Your task to perform on an android device: Open location settings Image 0: 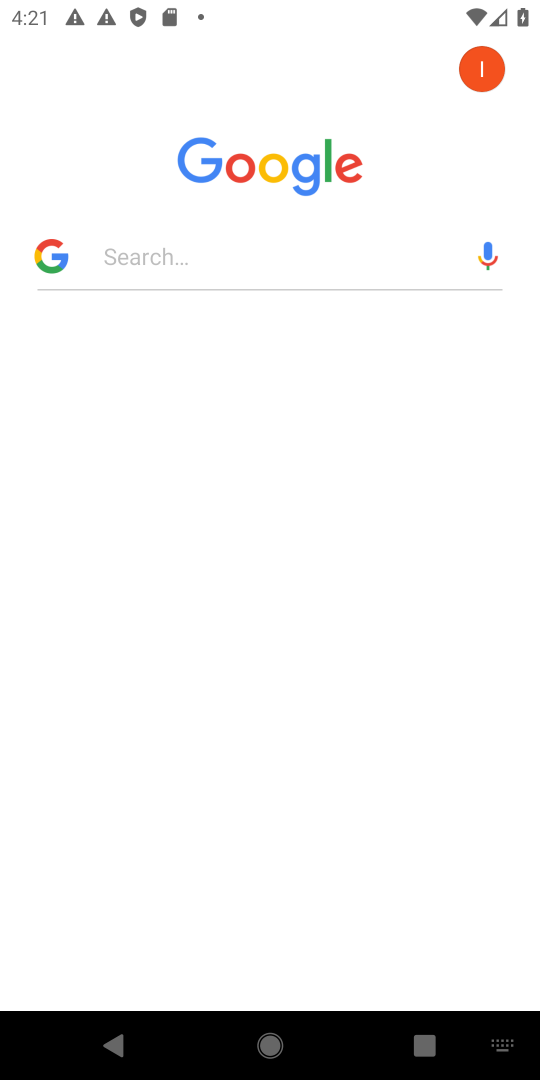
Step 0: press back button
Your task to perform on an android device: Open location settings Image 1: 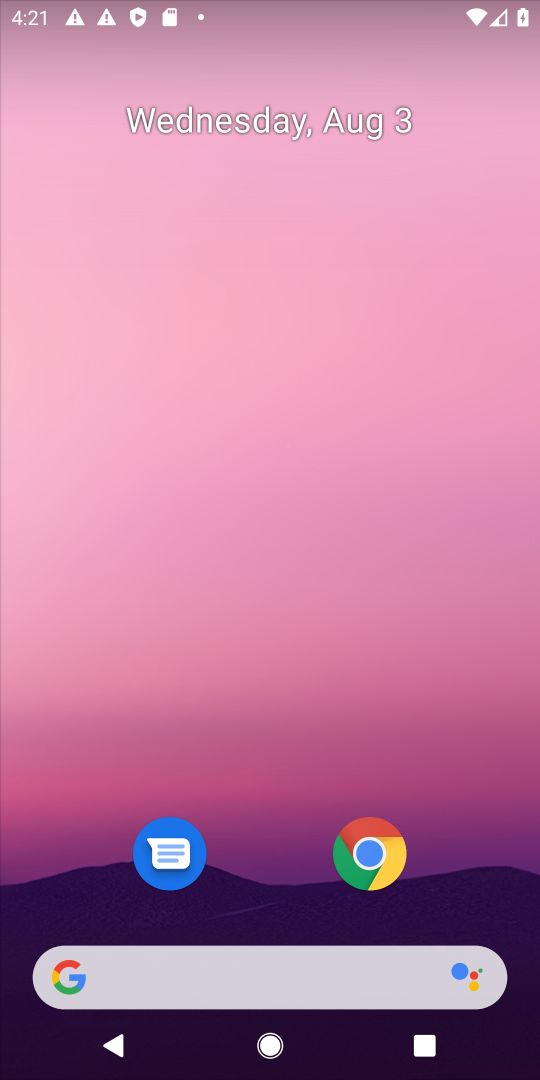
Step 1: drag from (446, 904) to (337, 82)
Your task to perform on an android device: Open location settings Image 2: 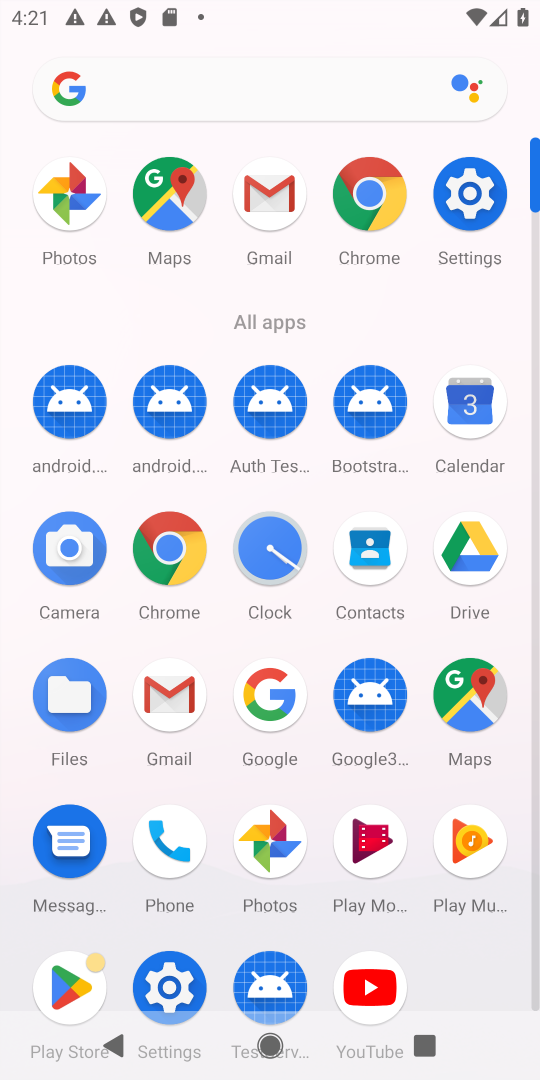
Step 2: click (471, 217)
Your task to perform on an android device: Open location settings Image 3: 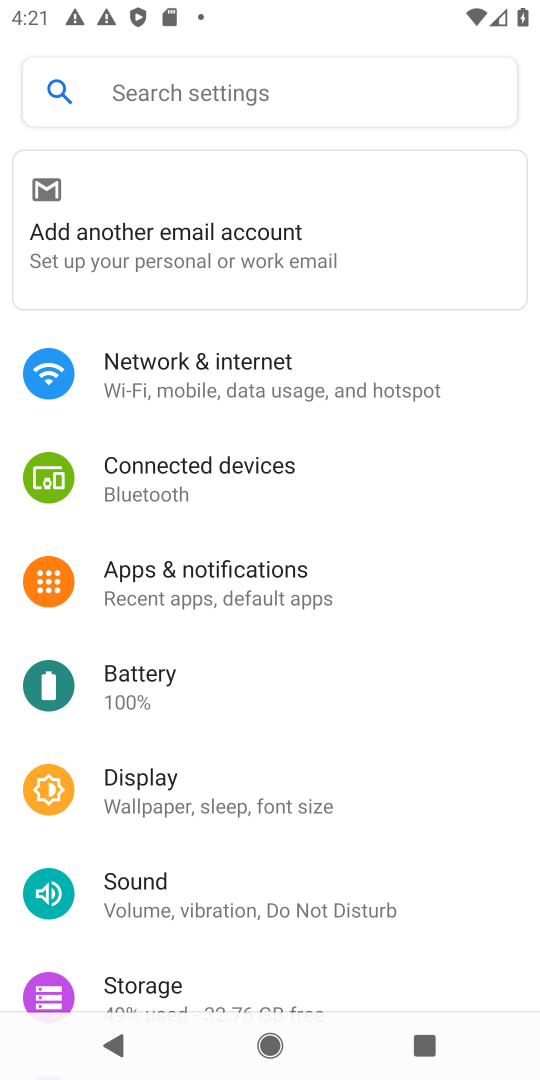
Step 3: drag from (347, 887) to (289, 180)
Your task to perform on an android device: Open location settings Image 4: 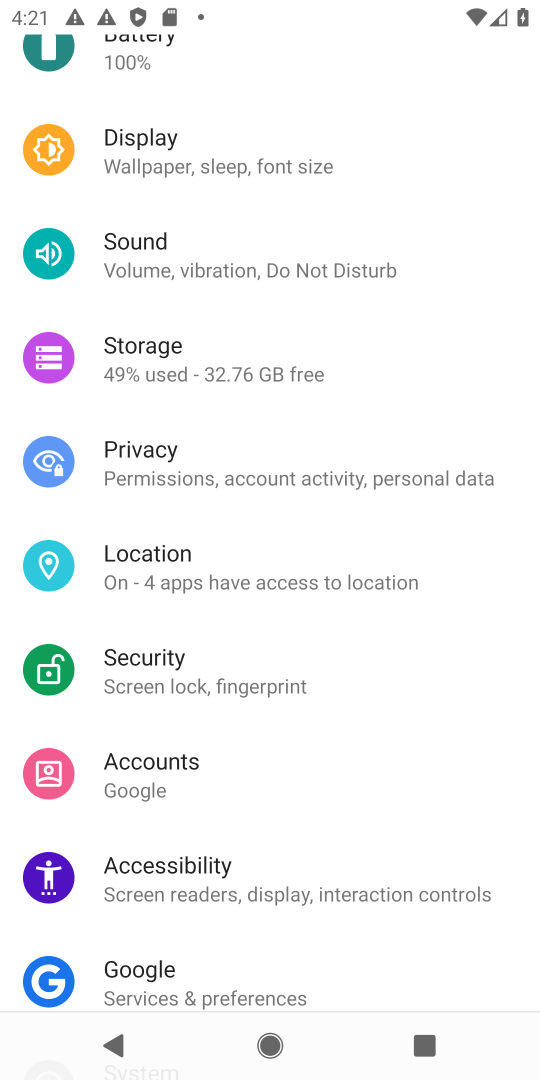
Step 4: click (333, 575)
Your task to perform on an android device: Open location settings Image 5: 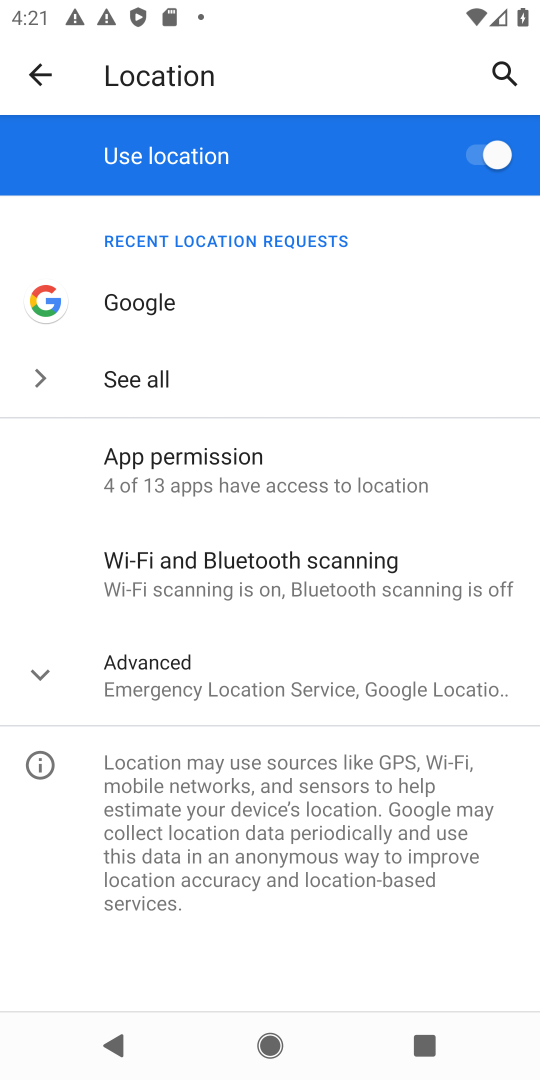
Step 5: task complete